Your task to perform on an android device: change notification settings in the gmail app Image 0: 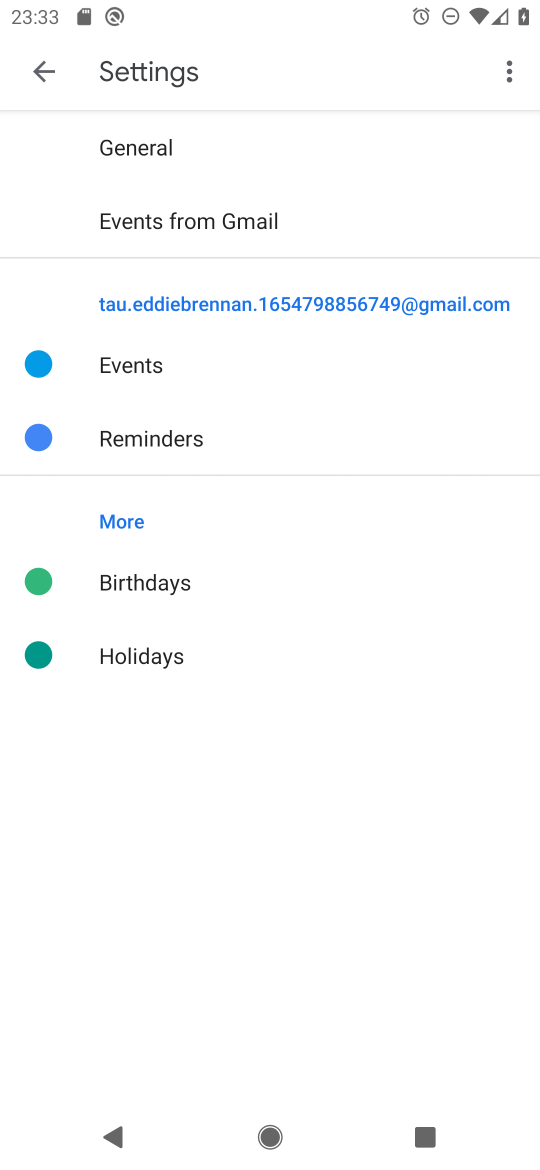
Step 0: press home button
Your task to perform on an android device: change notification settings in the gmail app Image 1: 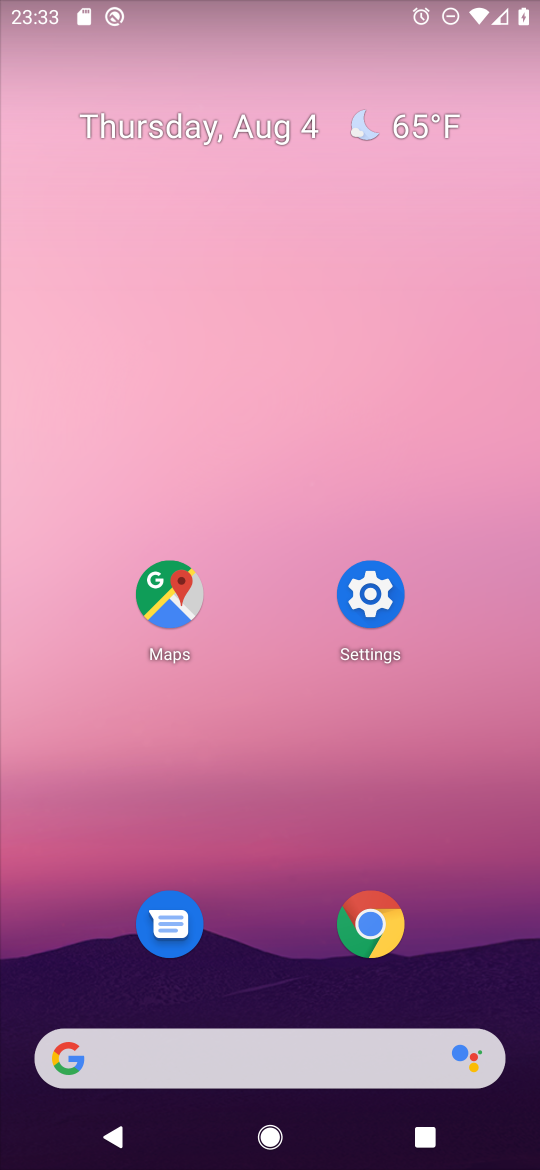
Step 1: drag from (247, 1057) to (402, 170)
Your task to perform on an android device: change notification settings in the gmail app Image 2: 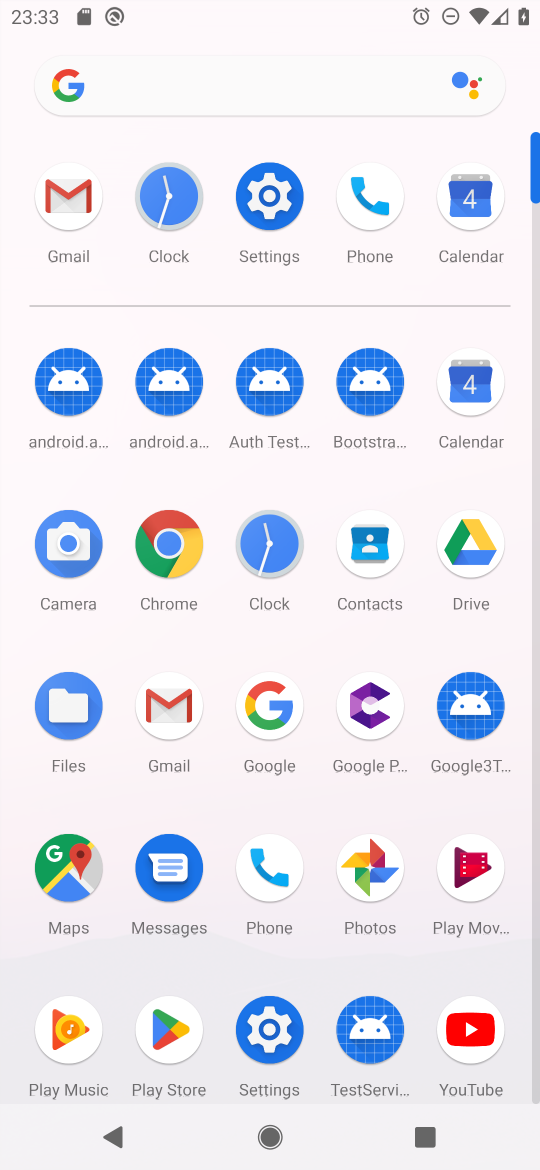
Step 2: click (76, 200)
Your task to perform on an android device: change notification settings in the gmail app Image 3: 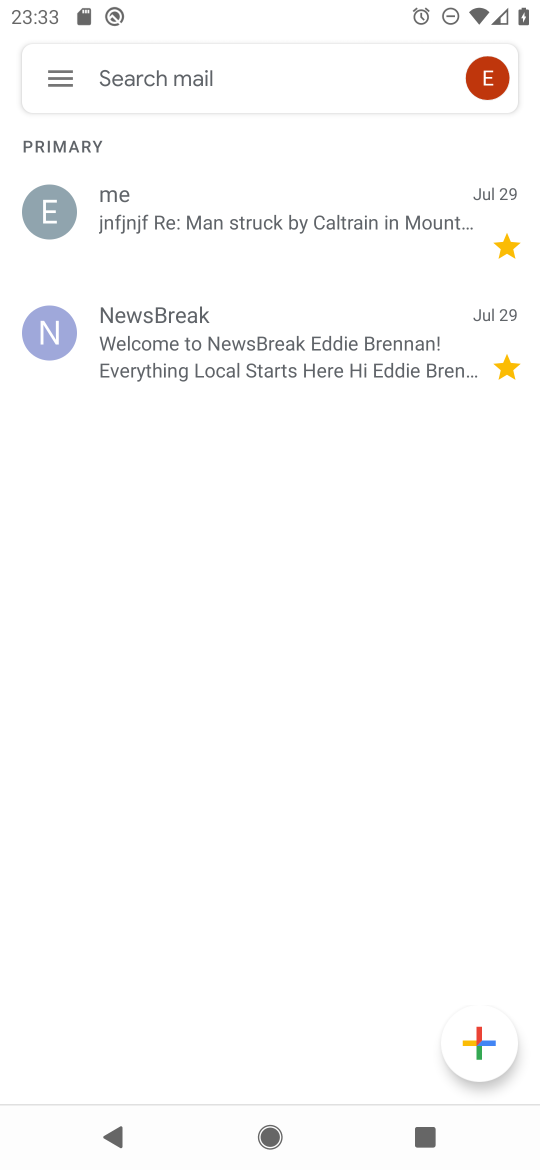
Step 3: click (61, 74)
Your task to perform on an android device: change notification settings in the gmail app Image 4: 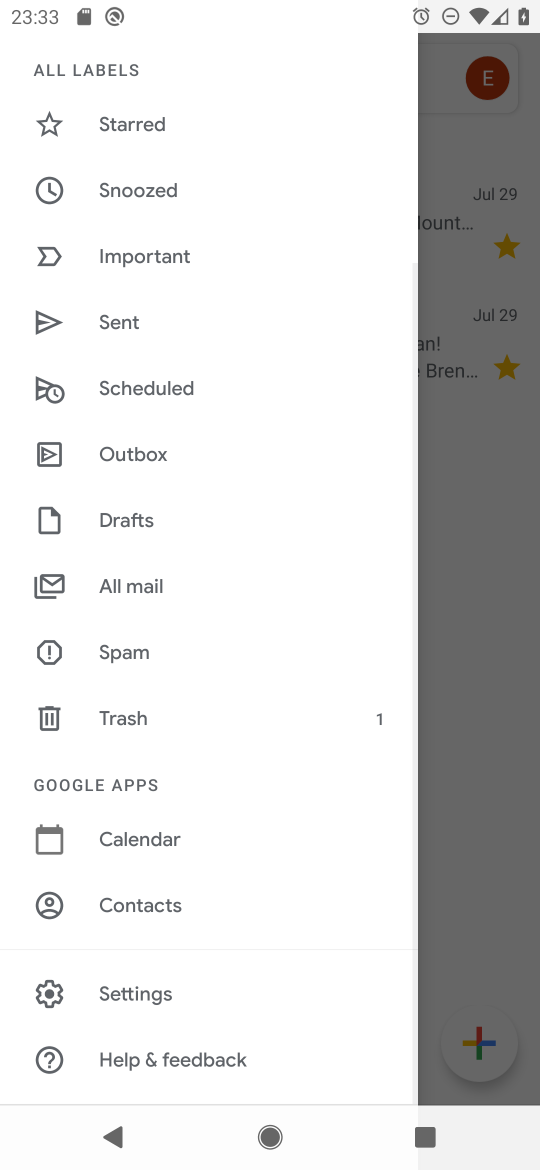
Step 4: click (149, 999)
Your task to perform on an android device: change notification settings in the gmail app Image 5: 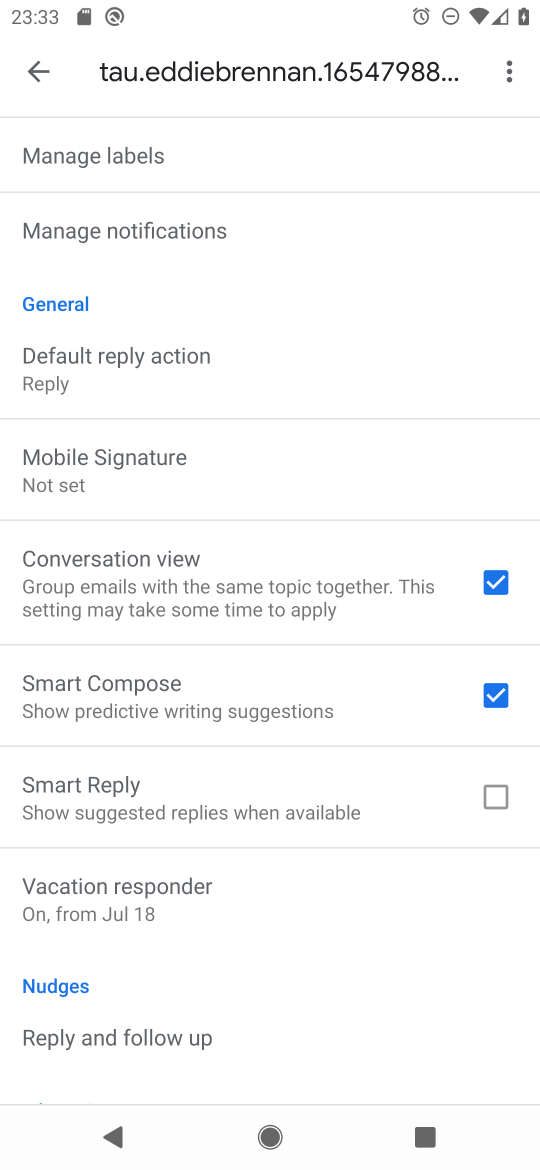
Step 5: drag from (335, 215) to (301, 952)
Your task to perform on an android device: change notification settings in the gmail app Image 6: 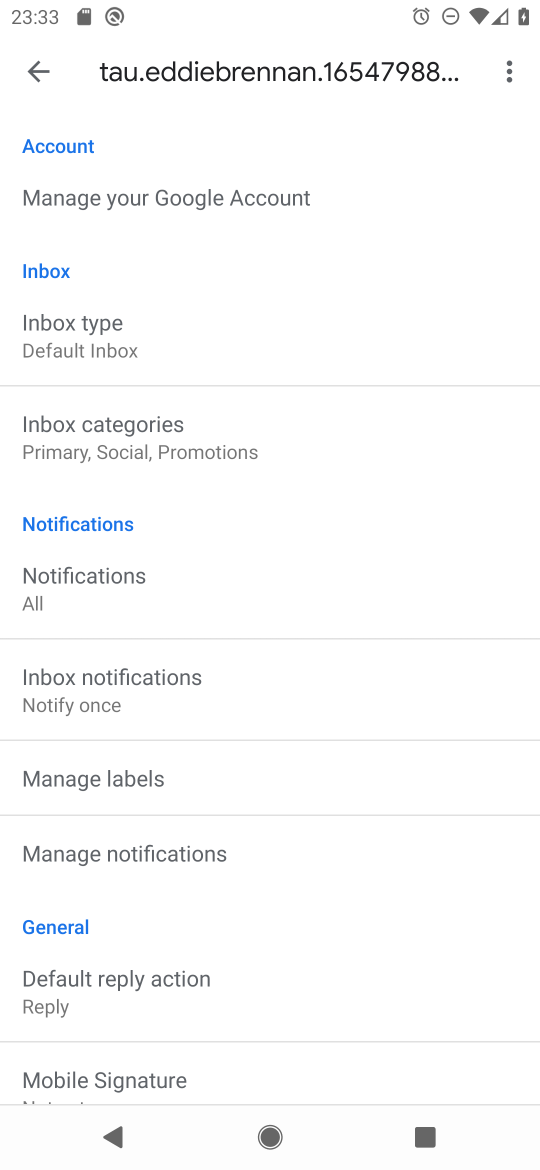
Step 6: click (84, 597)
Your task to perform on an android device: change notification settings in the gmail app Image 7: 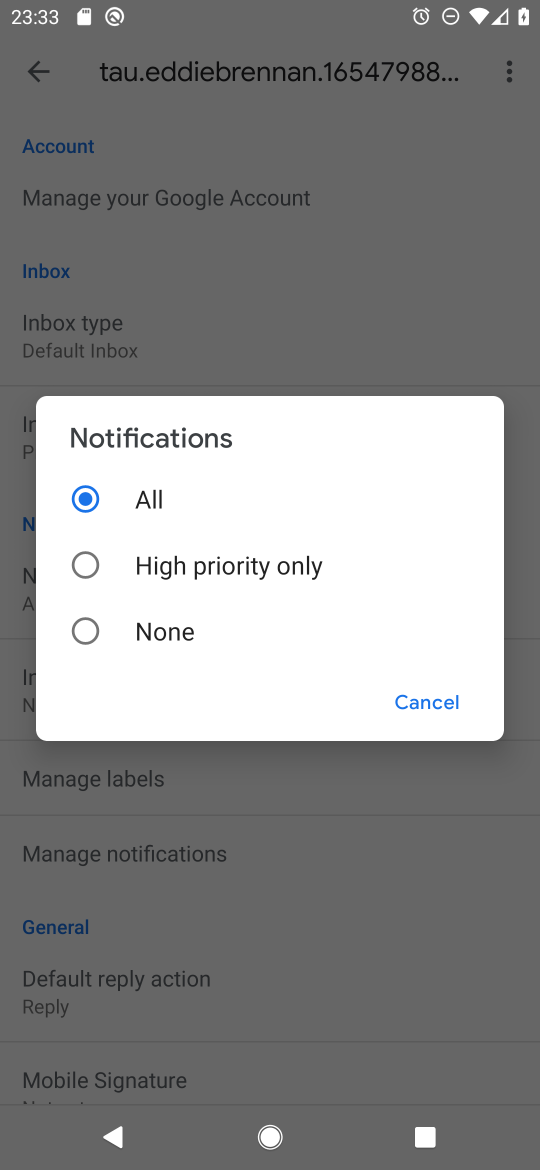
Step 7: click (92, 628)
Your task to perform on an android device: change notification settings in the gmail app Image 8: 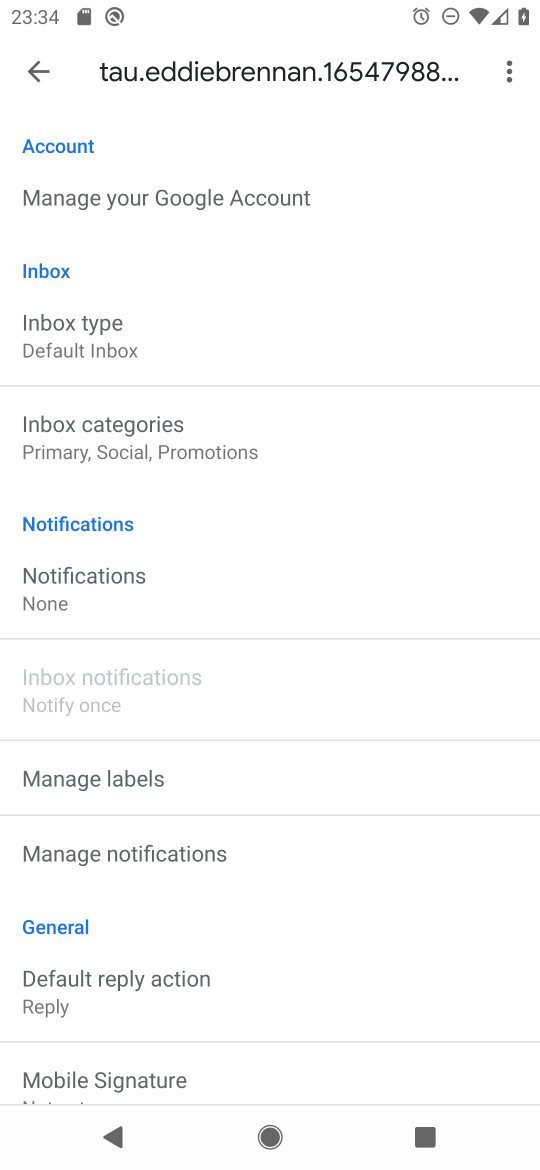
Step 8: task complete